Your task to perform on an android device: Open Android settings Image 0: 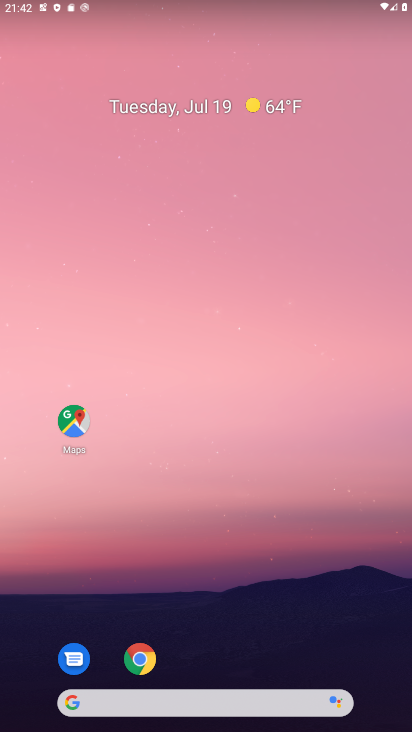
Step 0: drag from (192, 638) to (174, 198)
Your task to perform on an android device: Open Android settings Image 1: 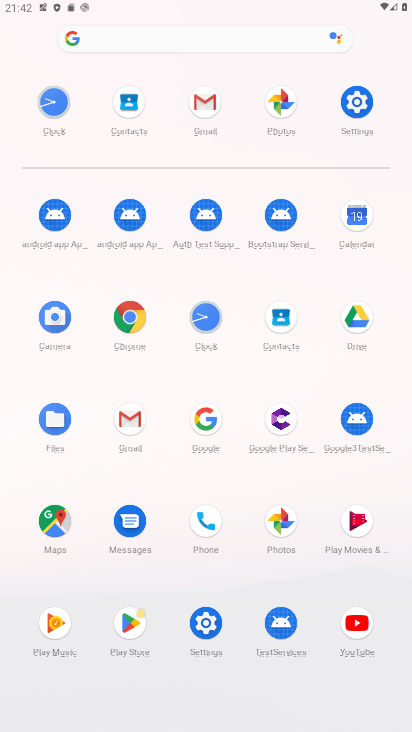
Step 1: click (365, 112)
Your task to perform on an android device: Open Android settings Image 2: 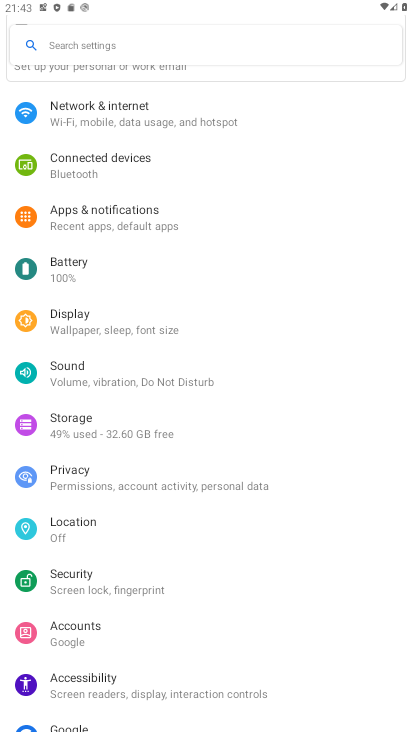
Step 2: task complete